Your task to perform on an android device: turn off improve location accuracy Image 0: 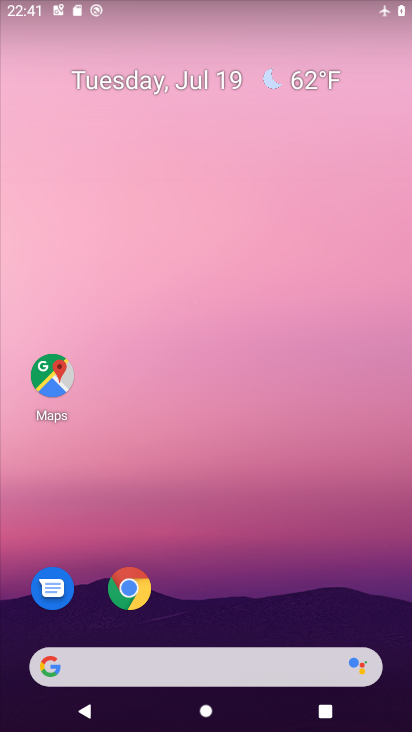
Step 0: drag from (184, 608) to (264, 64)
Your task to perform on an android device: turn off improve location accuracy Image 1: 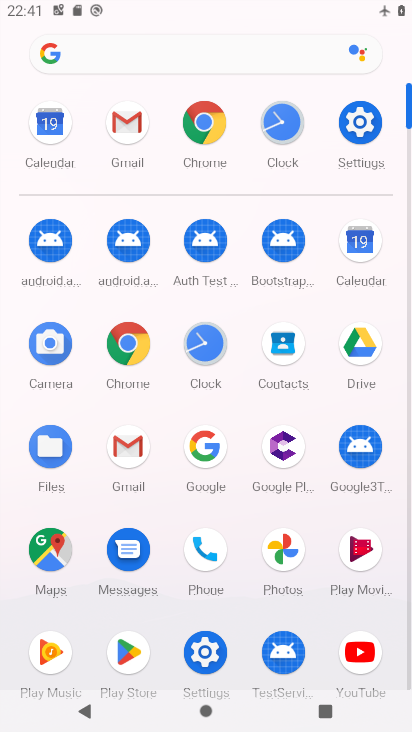
Step 1: click (361, 127)
Your task to perform on an android device: turn off improve location accuracy Image 2: 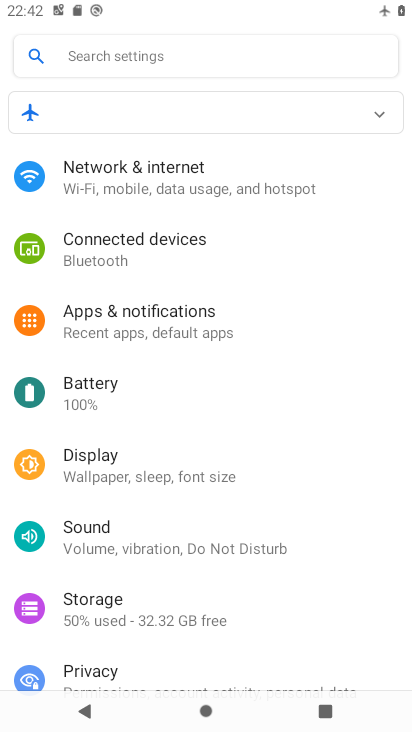
Step 2: drag from (127, 533) to (194, 275)
Your task to perform on an android device: turn off improve location accuracy Image 3: 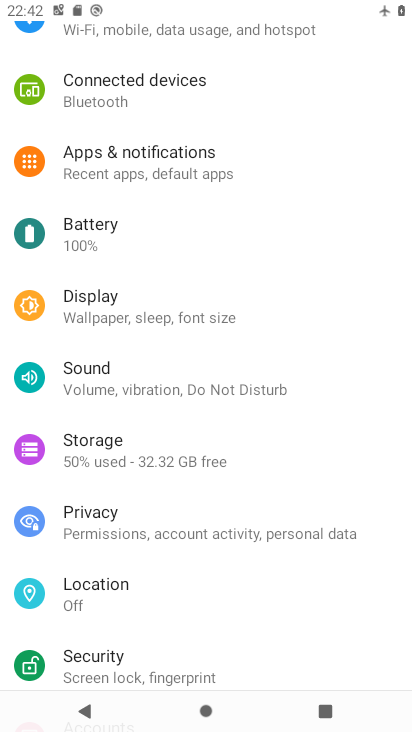
Step 3: click (96, 587)
Your task to perform on an android device: turn off improve location accuracy Image 4: 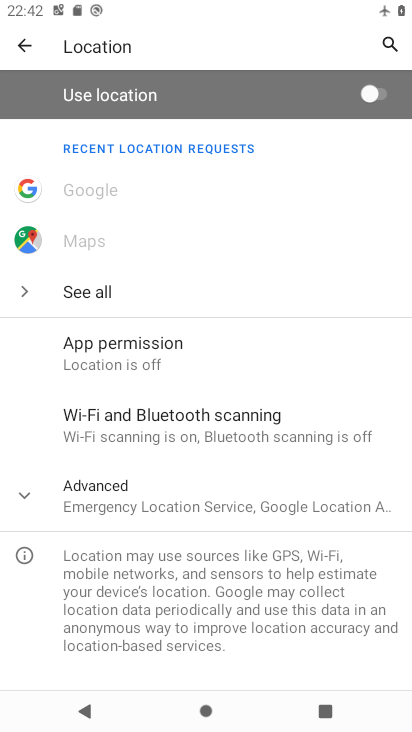
Step 4: click (24, 42)
Your task to perform on an android device: turn off improve location accuracy Image 5: 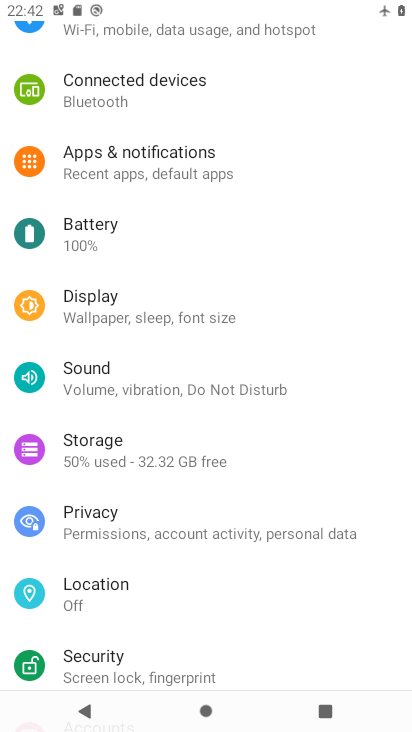
Step 5: click (102, 587)
Your task to perform on an android device: turn off improve location accuracy Image 6: 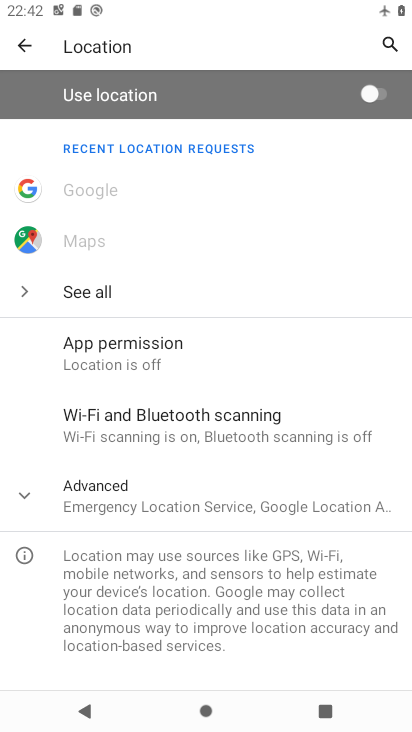
Step 6: click (184, 492)
Your task to perform on an android device: turn off improve location accuracy Image 7: 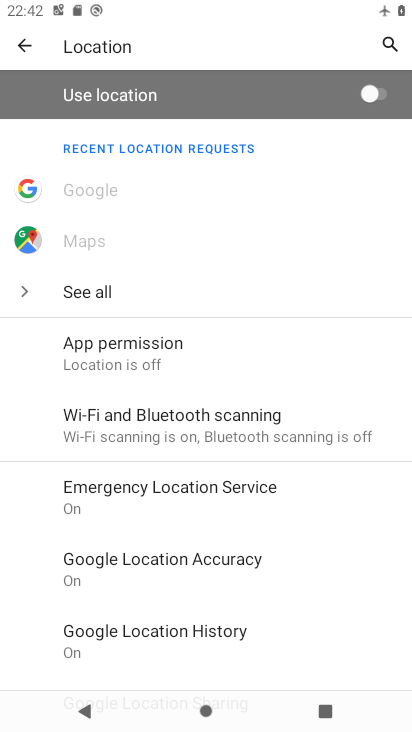
Step 7: click (150, 566)
Your task to perform on an android device: turn off improve location accuracy Image 8: 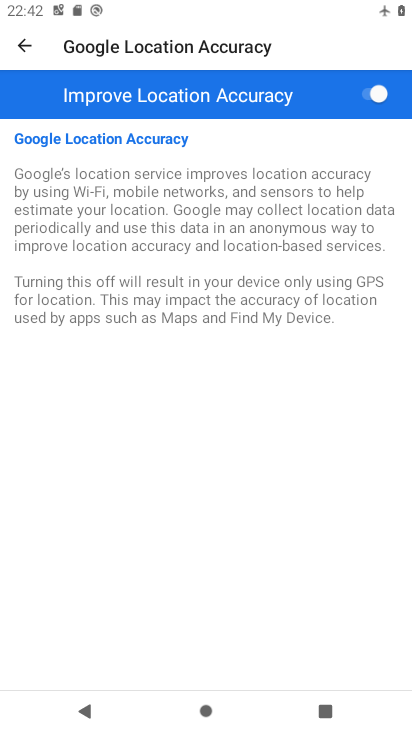
Step 8: click (361, 101)
Your task to perform on an android device: turn off improve location accuracy Image 9: 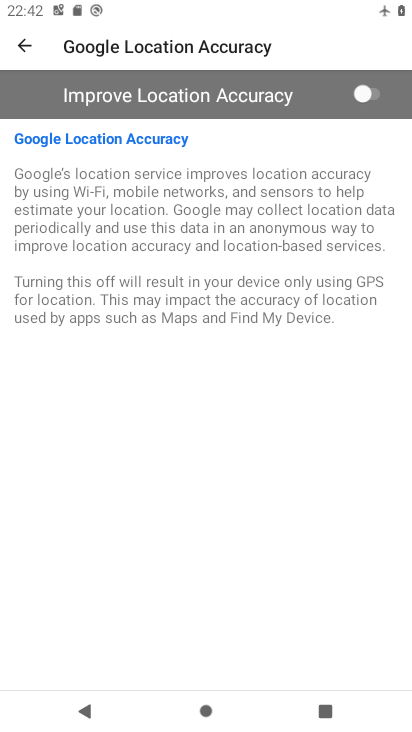
Step 9: task complete